Your task to perform on an android device: Is it going to rain this weekend? Image 0: 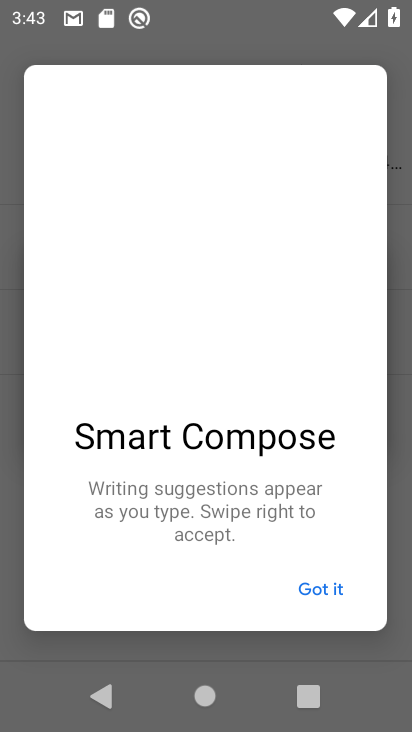
Step 0: press home button
Your task to perform on an android device: Is it going to rain this weekend? Image 1: 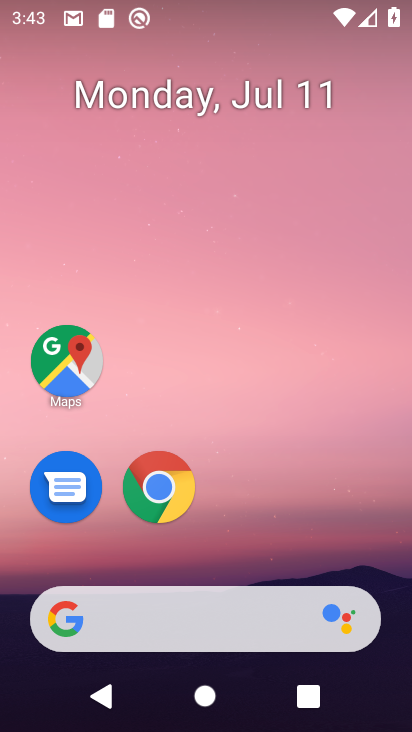
Step 1: click (205, 617)
Your task to perform on an android device: Is it going to rain this weekend? Image 2: 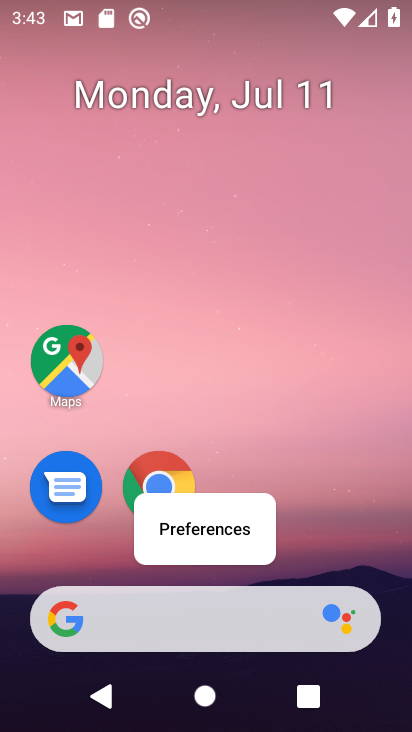
Step 2: click (205, 617)
Your task to perform on an android device: Is it going to rain this weekend? Image 3: 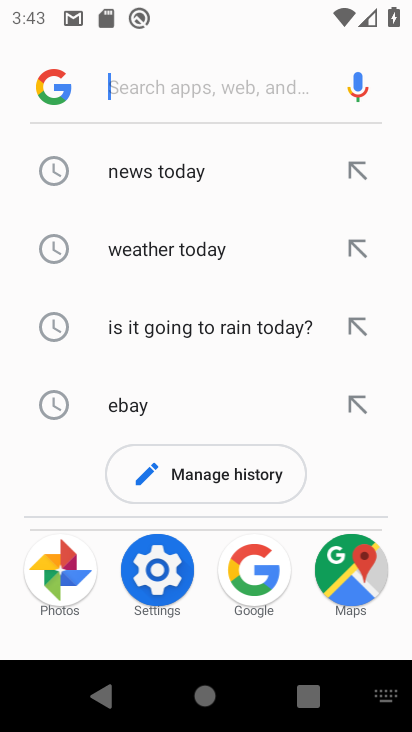
Step 3: type "Is it going to rain this weekend"
Your task to perform on an android device: Is it going to rain this weekend? Image 4: 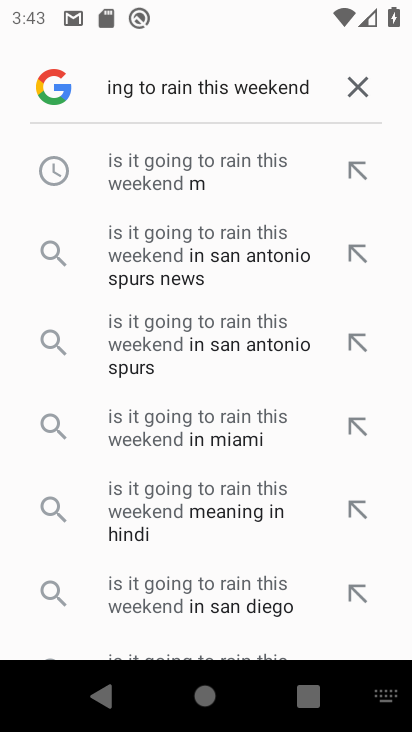
Step 4: click (220, 169)
Your task to perform on an android device: Is it going to rain this weekend? Image 5: 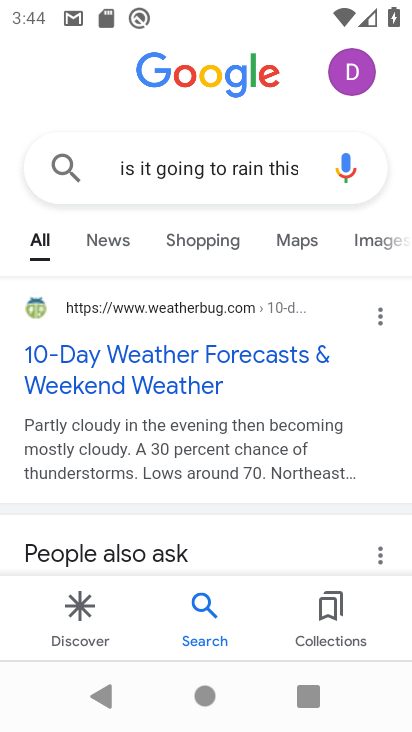
Step 5: drag from (146, 551) to (290, 127)
Your task to perform on an android device: Is it going to rain this weekend? Image 6: 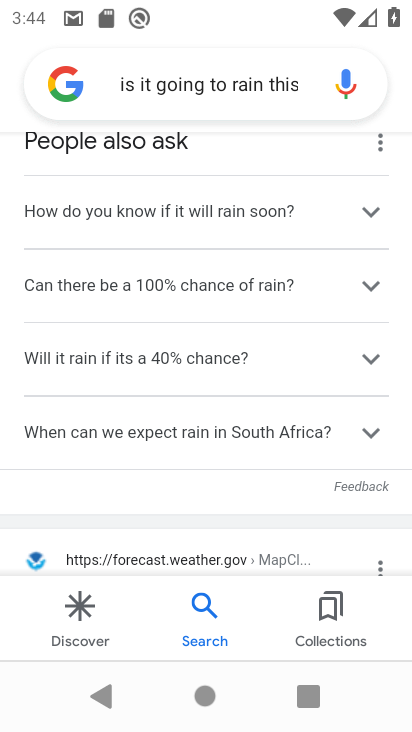
Step 6: drag from (159, 493) to (294, 76)
Your task to perform on an android device: Is it going to rain this weekend? Image 7: 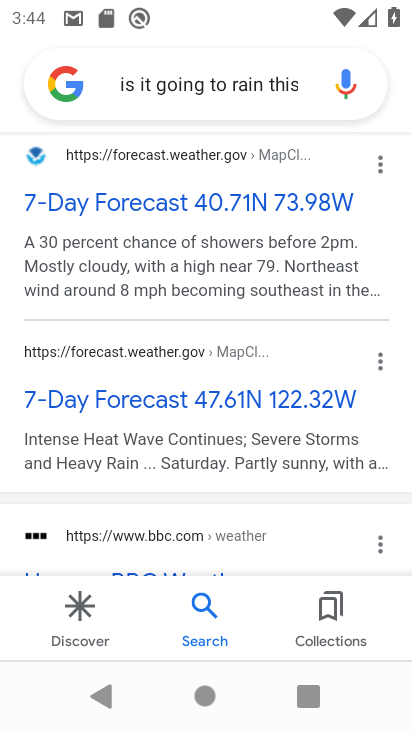
Step 7: drag from (195, 199) to (191, 540)
Your task to perform on an android device: Is it going to rain this weekend? Image 8: 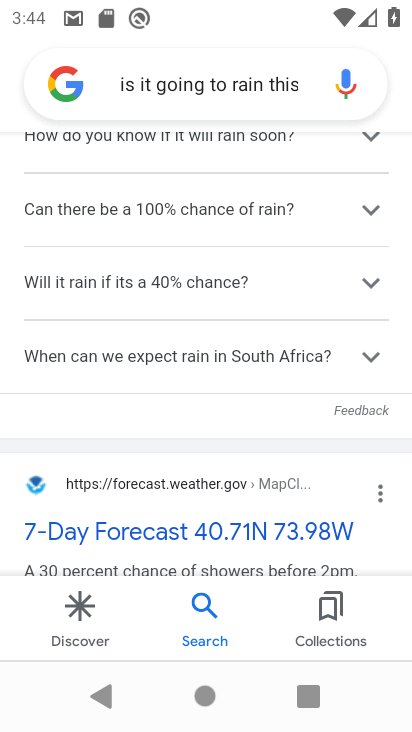
Step 8: drag from (238, 201) to (178, 581)
Your task to perform on an android device: Is it going to rain this weekend? Image 9: 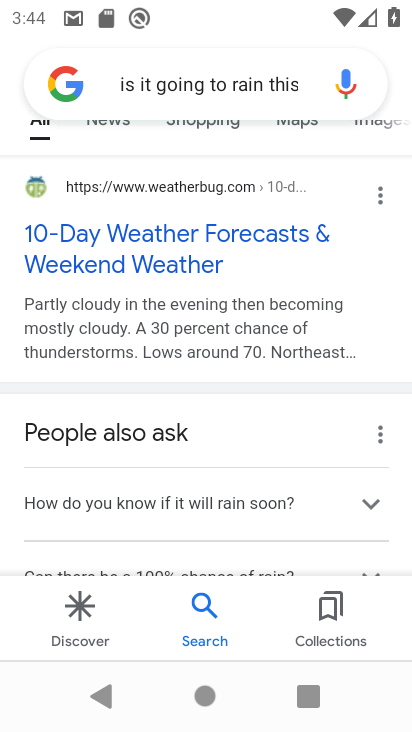
Step 9: click (183, 242)
Your task to perform on an android device: Is it going to rain this weekend? Image 10: 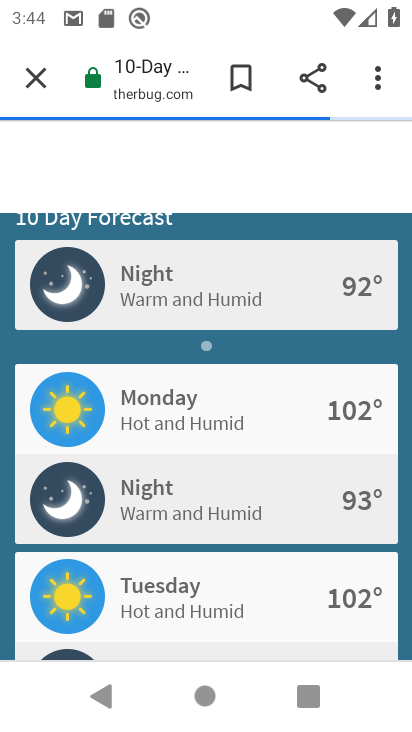
Step 10: task complete